Your task to perform on an android device: Go to Maps Image 0: 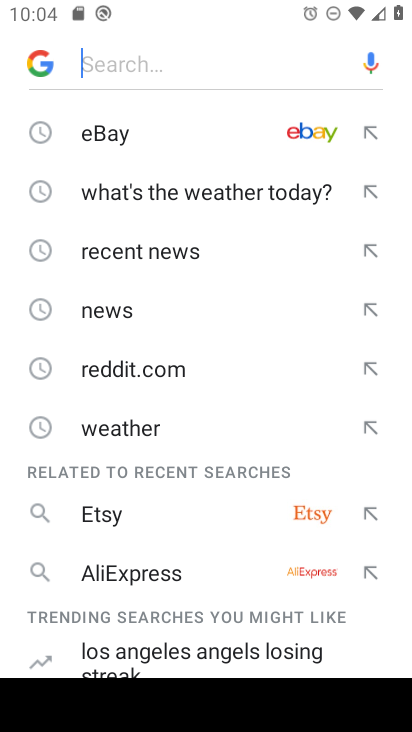
Step 0: press home button
Your task to perform on an android device: Go to Maps Image 1: 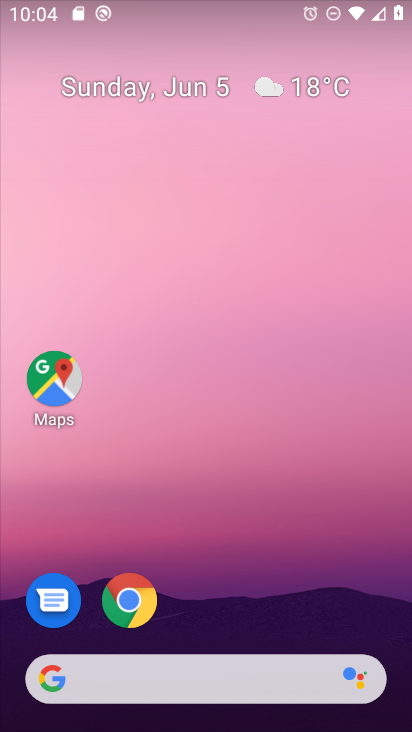
Step 1: click (54, 365)
Your task to perform on an android device: Go to Maps Image 2: 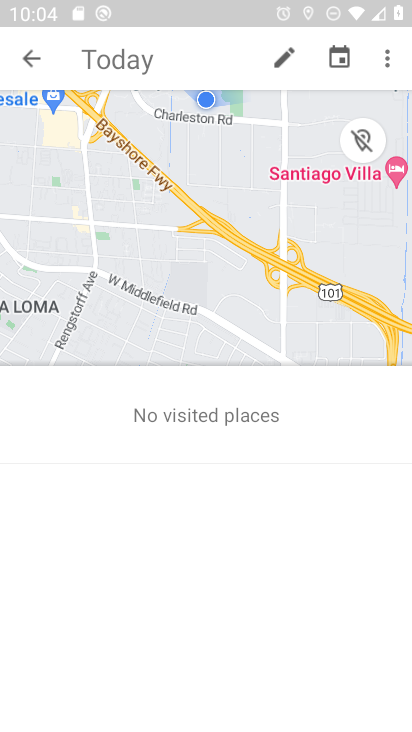
Step 2: click (29, 56)
Your task to perform on an android device: Go to Maps Image 3: 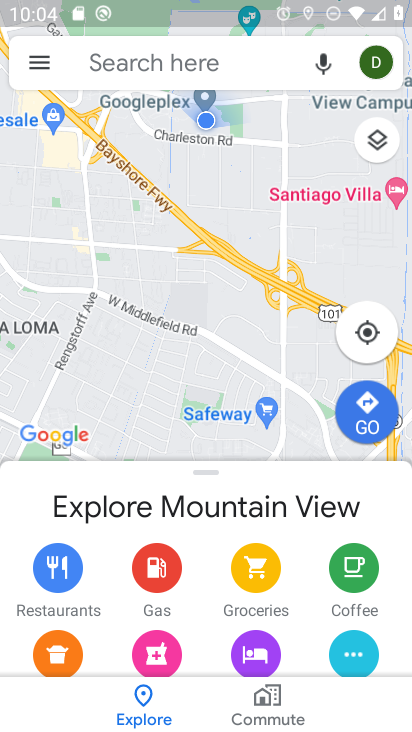
Step 3: task complete